Your task to perform on an android device: Search for vegetarian restaurants on Maps Image 0: 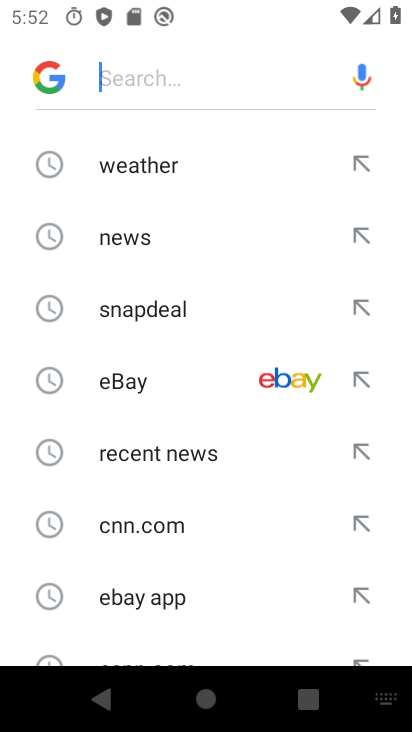
Step 0: press home button
Your task to perform on an android device: Search for vegetarian restaurants on Maps Image 1: 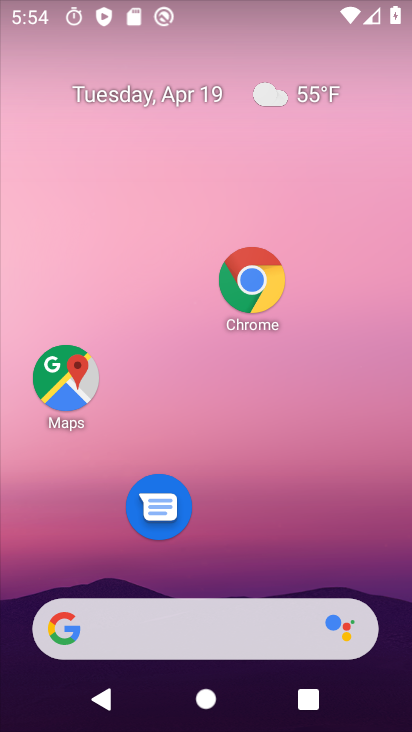
Step 1: click (56, 366)
Your task to perform on an android device: Search for vegetarian restaurants on Maps Image 2: 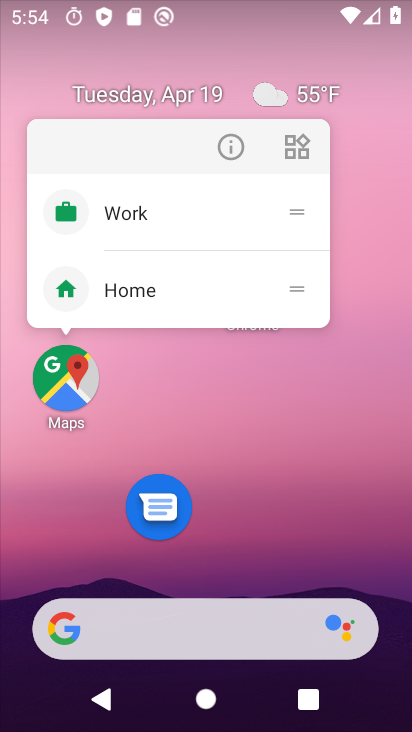
Step 2: click (66, 378)
Your task to perform on an android device: Search for vegetarian restaurants on Maps Image 3: 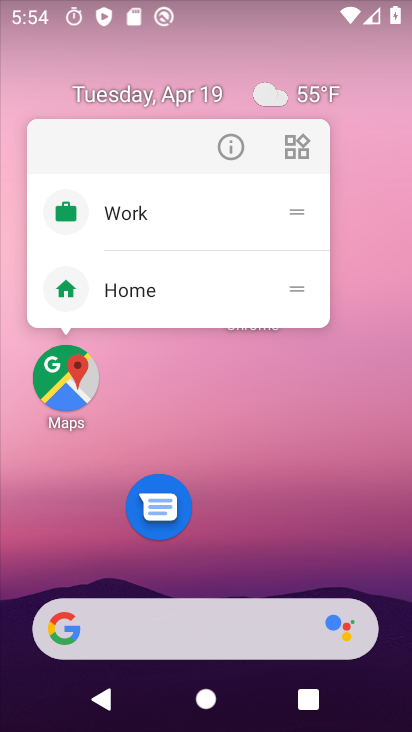
Step 3: click (66, 381)
Your task to perform on an android device: Search for vegetarian restaurants on Maps Image 4: 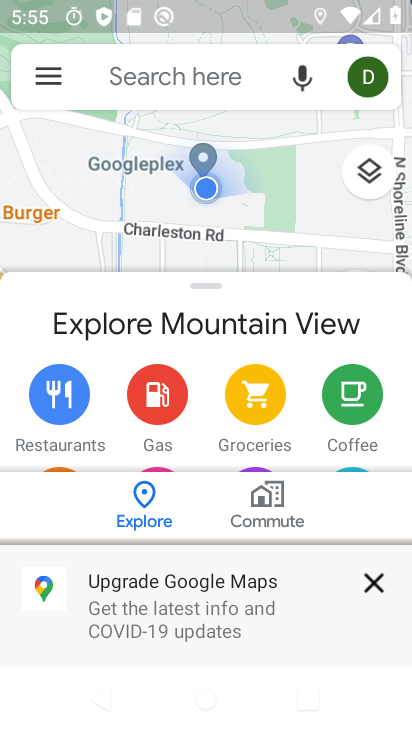
Step 4: click (379, 593)
Your task to perform on an android device: Search for vegetarian restaurants on Maps Image 5: 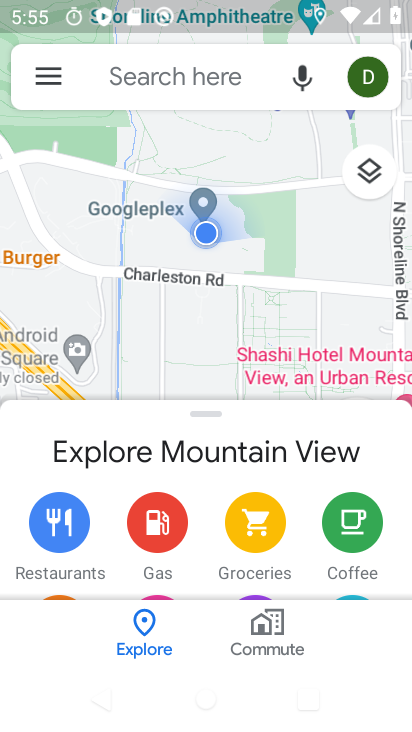
Step 5: click (213, 68)
Your task to perform on an android device: Search for vegetarian restaurants on Maps Image 6: 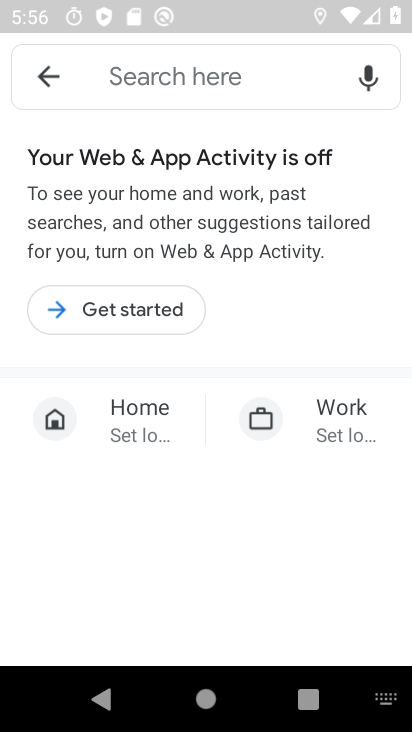
Step 6: type "vegetarian restaurants"
Your task to perform on an android device: Search for vegetarian restaurants on Maps Image 7: 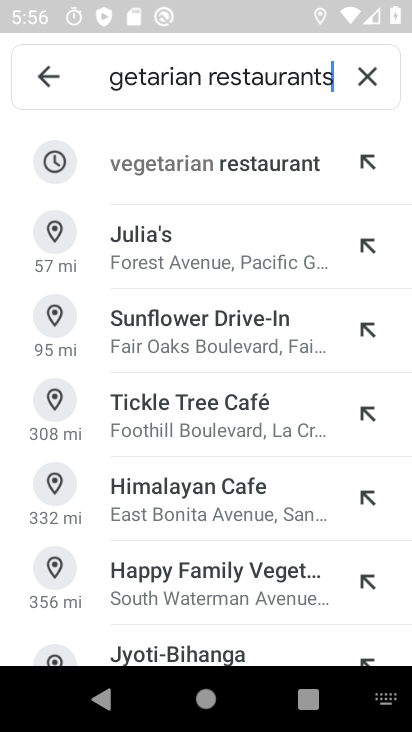
Step 7: click (264, 163)
Your task to perform on an android device: Search for vegetarian restaurants on Maps Image 8: 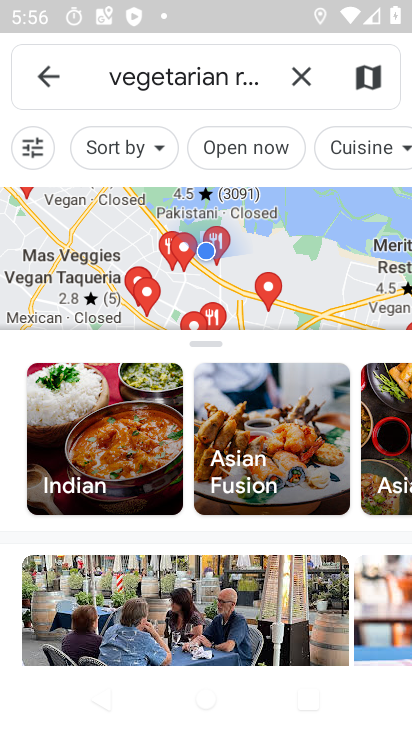
Step 8: task complete